Your task to perform on an android device: What's the weather going to be tomorrow? Image 0: 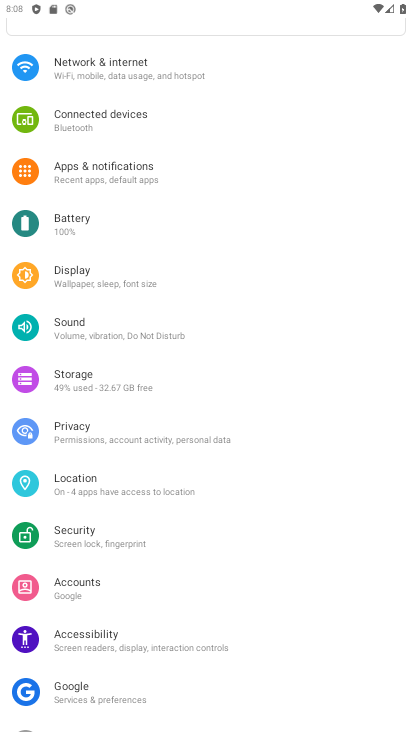
Step 0: press home button
Your task to perform on an android device: What's the weather going to be tomorrow? Image 1: 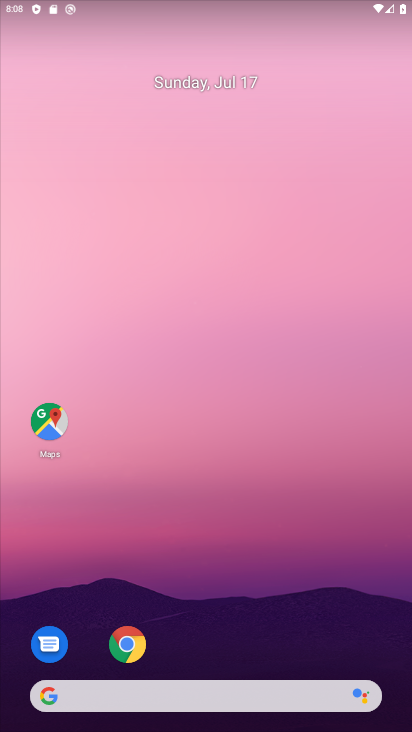
Step 1: drag from (251, 581) to (353, 2)
Your task to perform on an android device: What's the weather going to be tomorrow? Image 2: 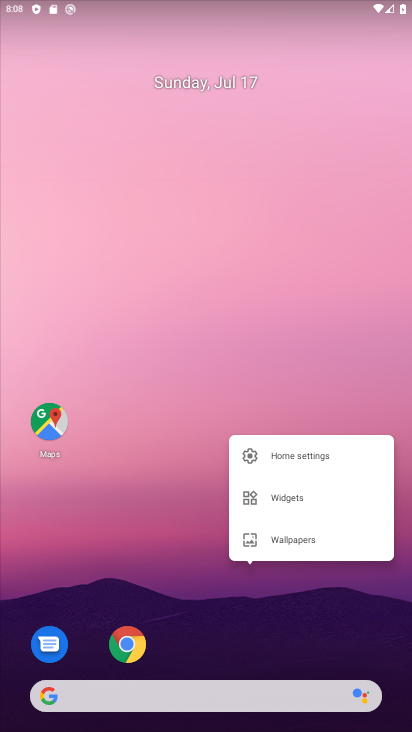
Step 2: drag from (202, 594) to (169, 32)
Your task to perform on an android device: What's the weather going to be tomorrow? Image 3: 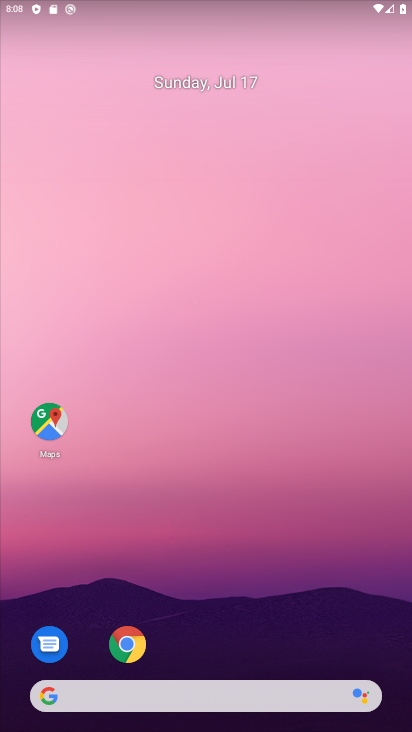
Step 3: drag from (154, 526) to (147, 32)
Your task to perform on an android device: What's the weather going to be tomorrow? Image 4: 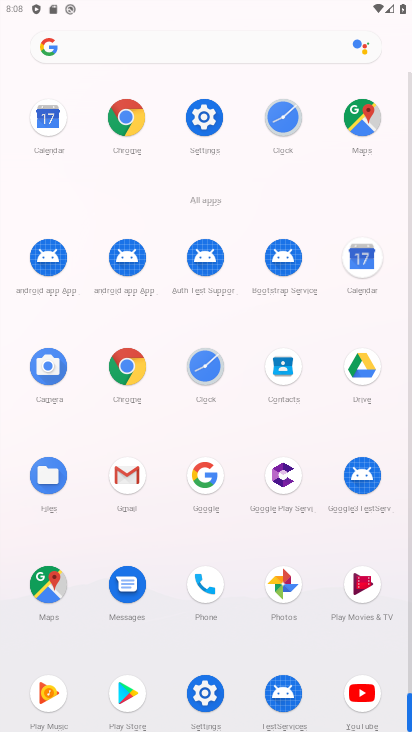
Step 4: click (138, 112)
Your task to perform on an android device: What's the weather going to be tomorrow? Image 5: 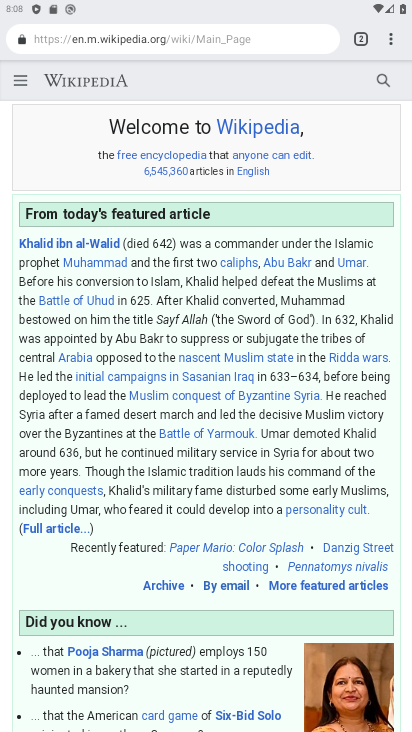
Step 5: click (387, 40)
Your task to perform on an android device: What's the weather going to be tomorrow? Image 6: 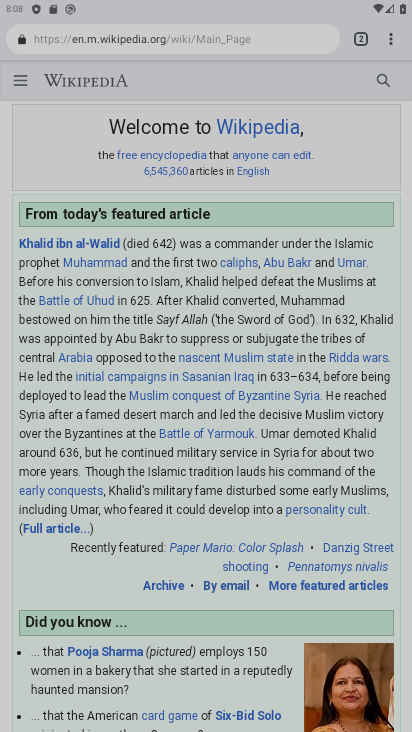
Step 6: click (250, 73)
Your task to perform on an android device: What's the weather going to be tomorrow? Image 7: 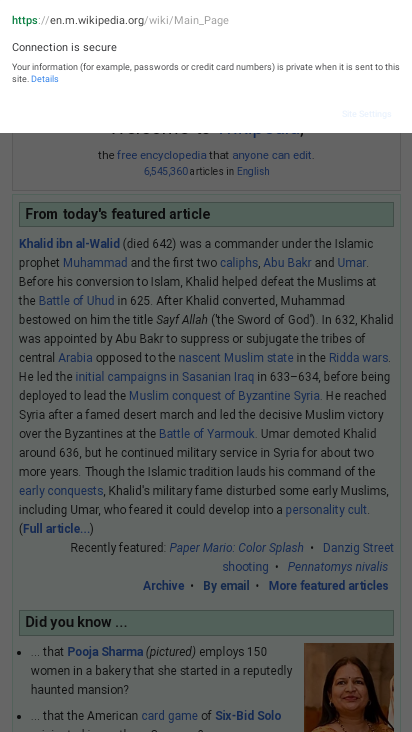
Step 7: click (249, 72)
Your task to perform on an android device: What's the weather going to be tomorrow? Image 8: 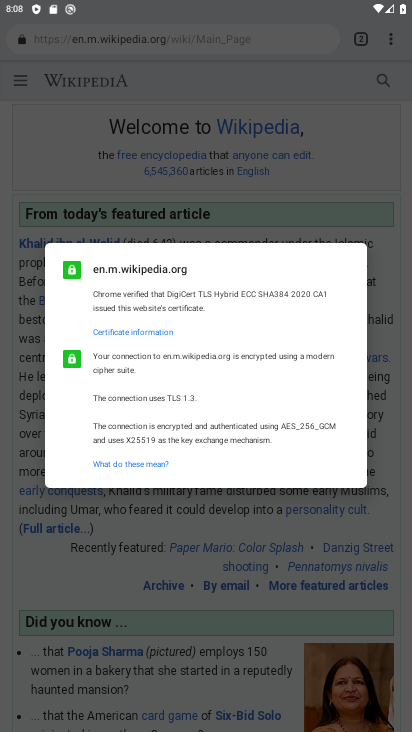
Step 8: click (341, 147)
Your task to perform on an android device: What's the weather going to be tomorrow? Image 9: 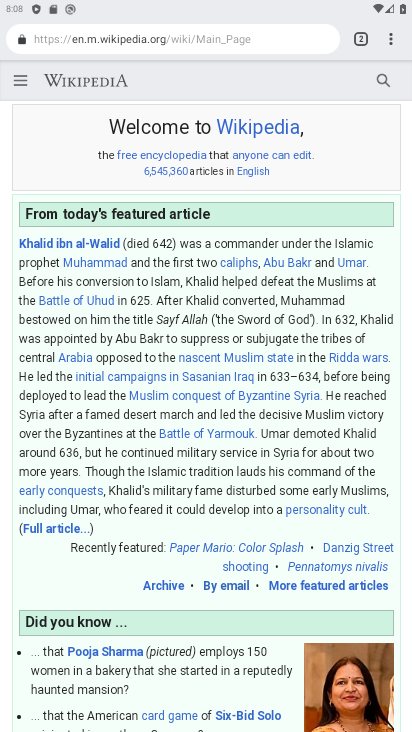
Step 9: click (393, 43)
Your task to perform on an android device: What's the weather going to be tomorrow? Image 10: 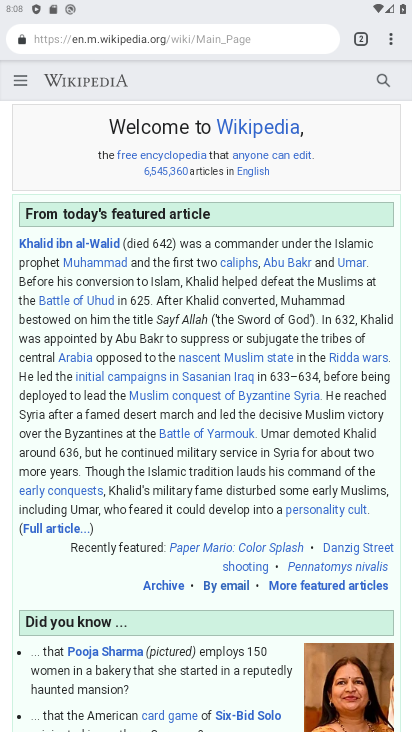
Step 10: drag from (392, 35) to (245, 70)
Your task to perform on an android device: What's the weather going to be tomorrow? Image 11: 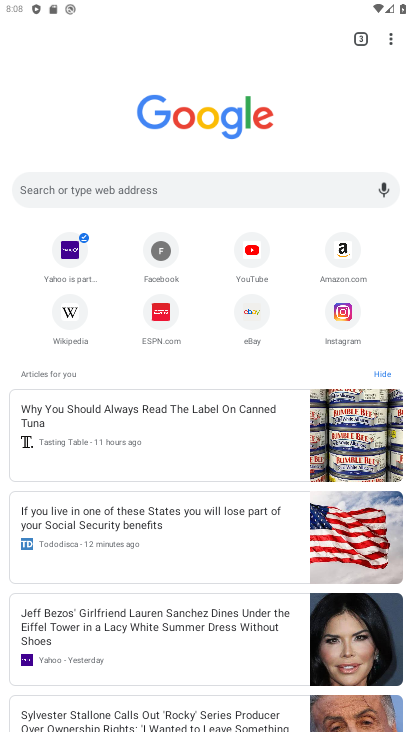
Step 11: click (71, 187)
Your task to perform on an android device: What's the weather going to be tomorrow? Image 12: 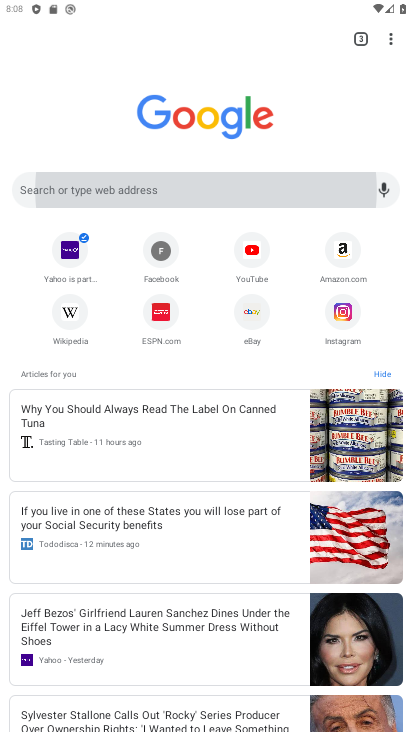
Step 12: click (71, 185)
Your task to perform on an android device: What's the weather going to be tomorrow? Image 13: 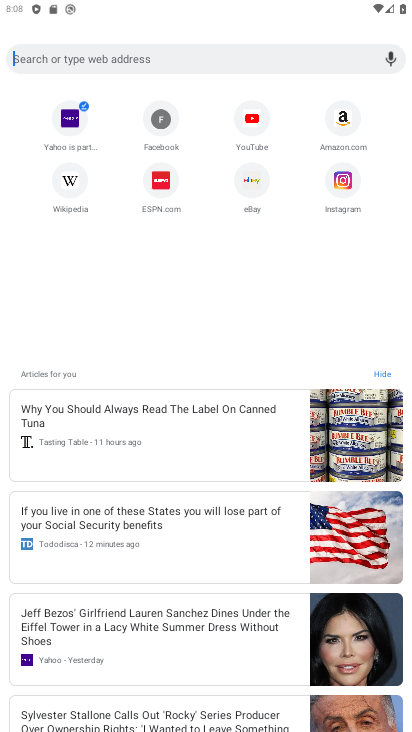
Step 13: click (77, 184)
Your task to perform on an android device: What's the weather going to be tomorrow? Image 14: 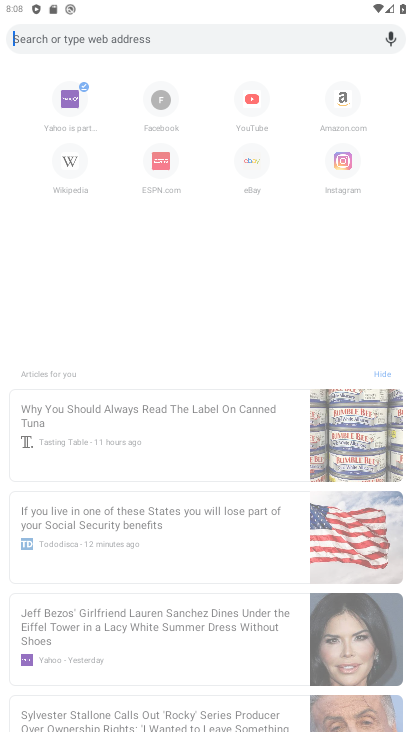
Step 14: click (82, 190)
Your task to perform on an android device: What's the weather going to be tomorrow? Image 15: 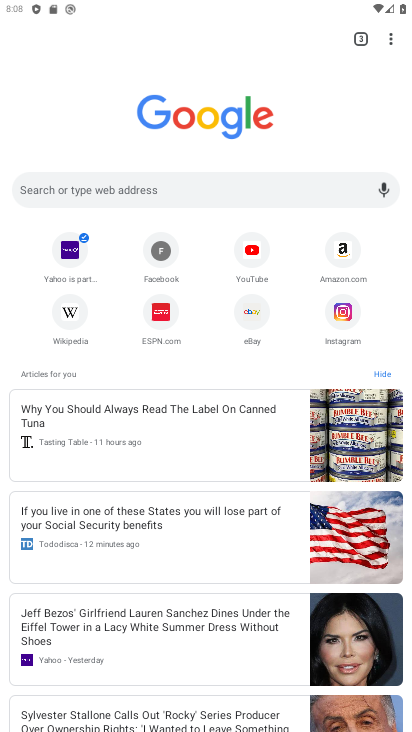
Step 15: click (52, 191)
Your task to perform on an android device: What's the weather going to be tomorrow? Image 16: 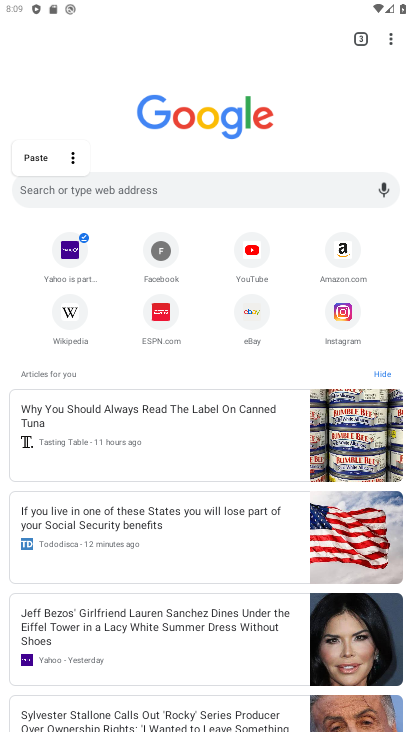
Step 16: type "whta's the weather going to be to morrow"
Your task to perform on an android device: What's the weather going to be tomorrow? Image 17: 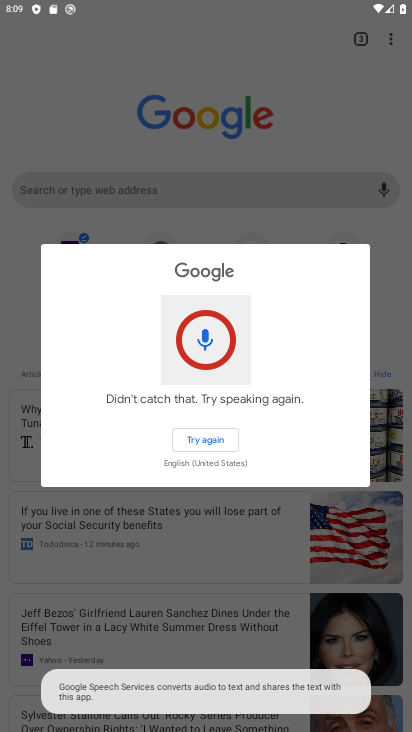
Step 17: click (204, 516)
Your task to perform on an android device: What's the weather going to be tomorrow? Image 18: 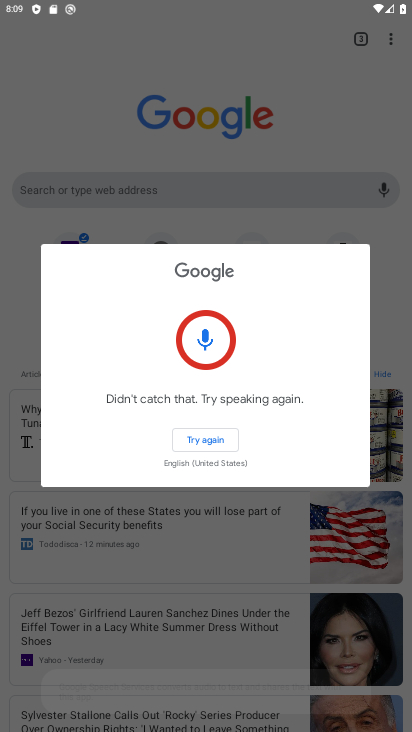
Step 18: click (204, 516)
Your task to perform on an android device: What's the weather going to be tomorrow? Image 19: 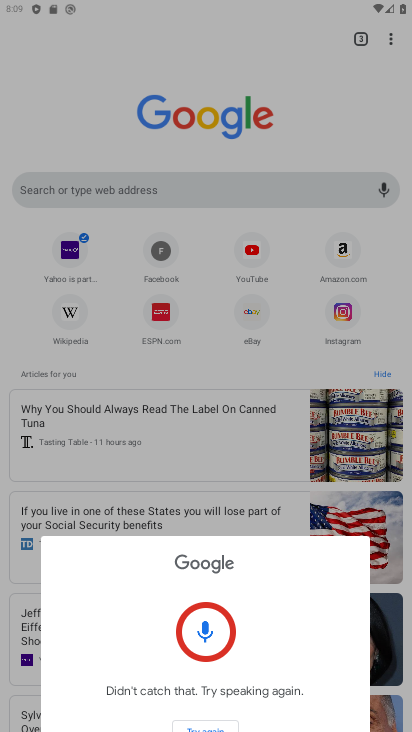
Step 19: click (203, 518)
Your task to perform on an android device: What's the weather going to be tomorrow? Image 20: 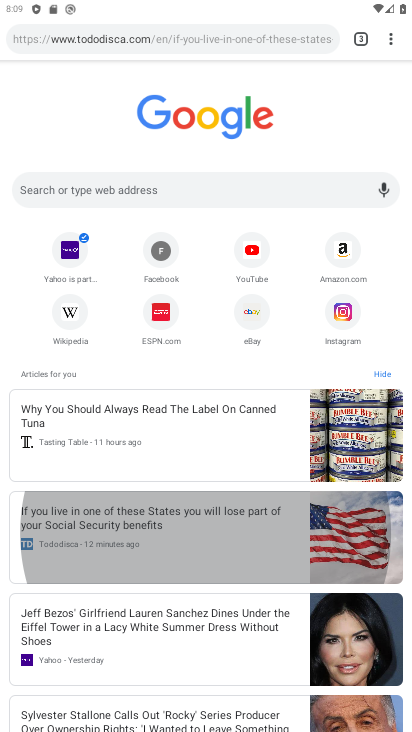
Step 20: click (203, 519)
Your task to perform on an android device: What's the weather going to be tomorrow? Image 21: 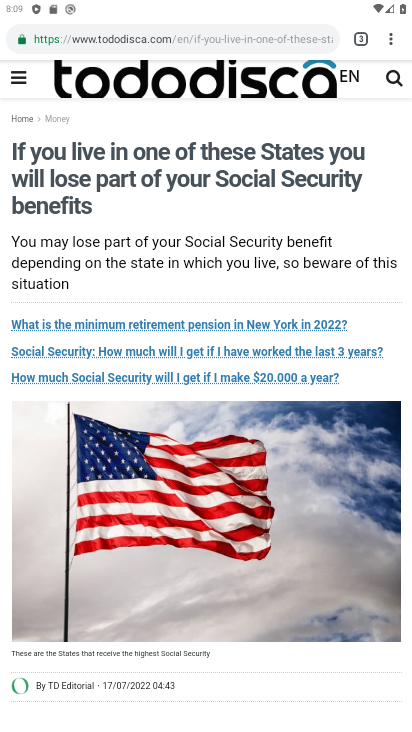
Step 21: task complete